Your task to perform on an android device: turn off wifi Image 0: 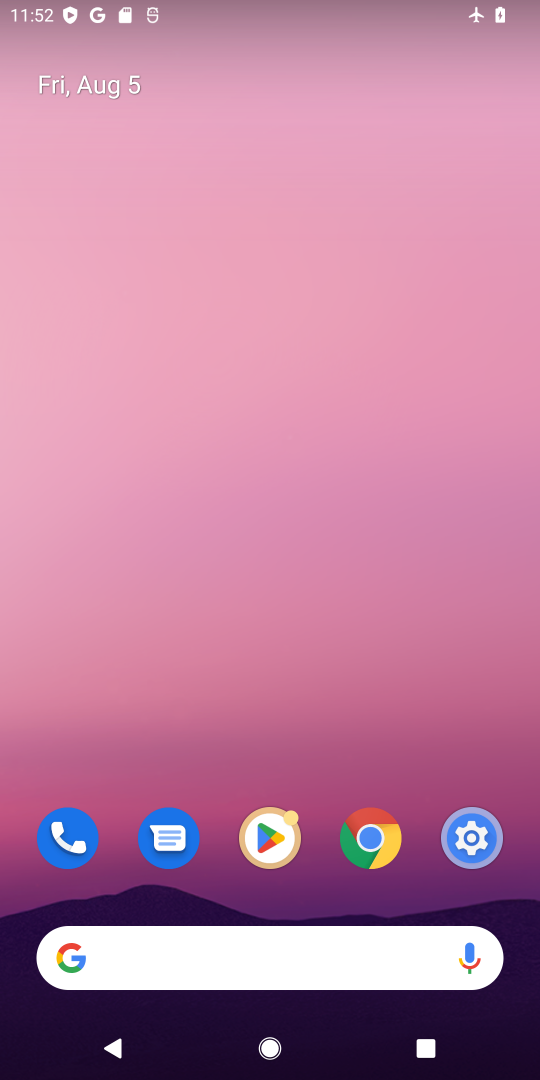
Step 0: drag from (386, 14) to (323, 492)
Your task to perform on an android device: turn off wifi Image 1: 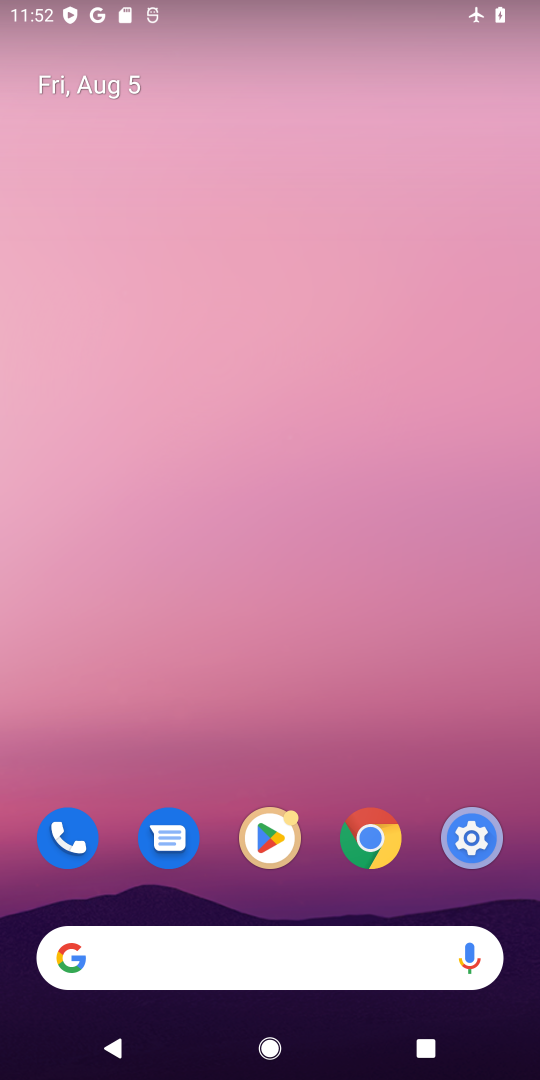
Step 1: task complete